Your task to perform on an android device: delete location history Image 0: 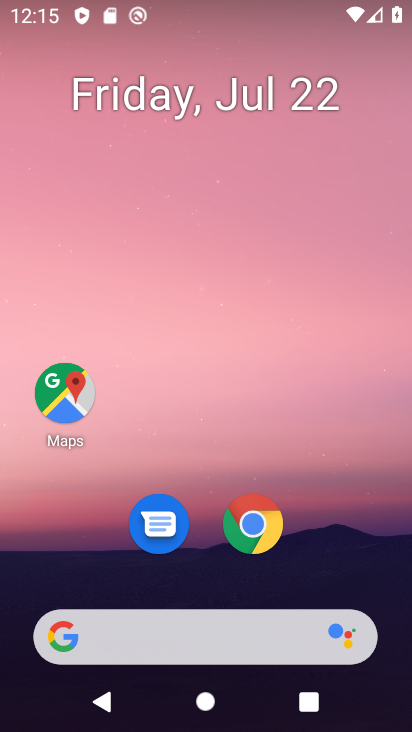
Step 0: press home button
Your task to perform on an android device: delete location history Image 1: 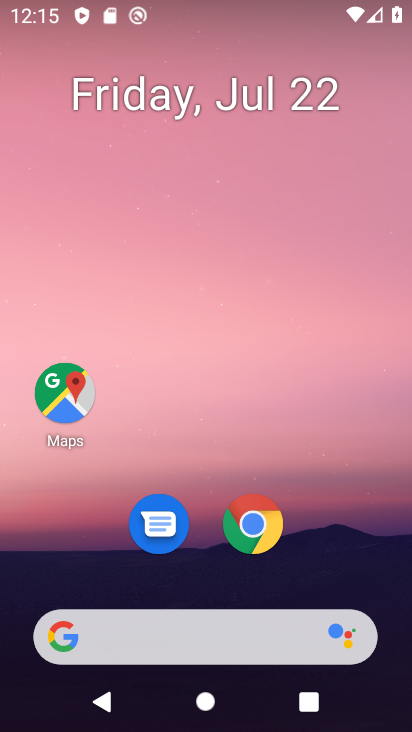
Step 1: click (75, 400)
Your task to perform on an android device: delete location history Image 2: 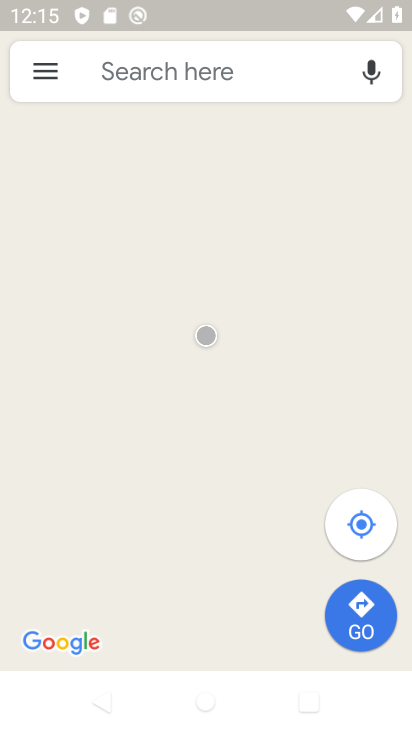
Step 2: click (52, 73)
Your task to perform on an android device: delete location history Image 3: 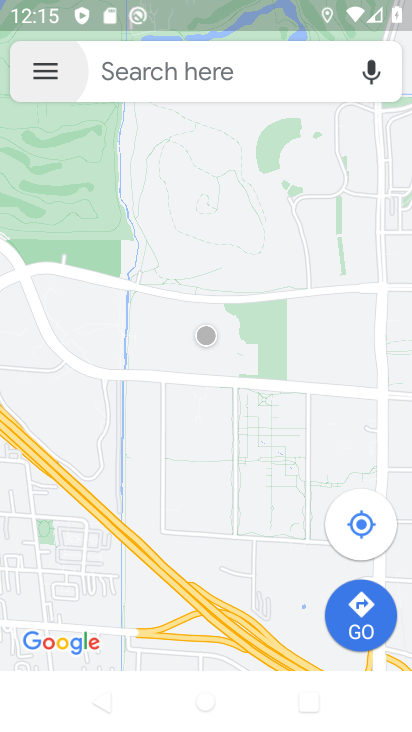
Step 3: click (47, 72)
Your task to perform on an android device: delete location history Image 4: 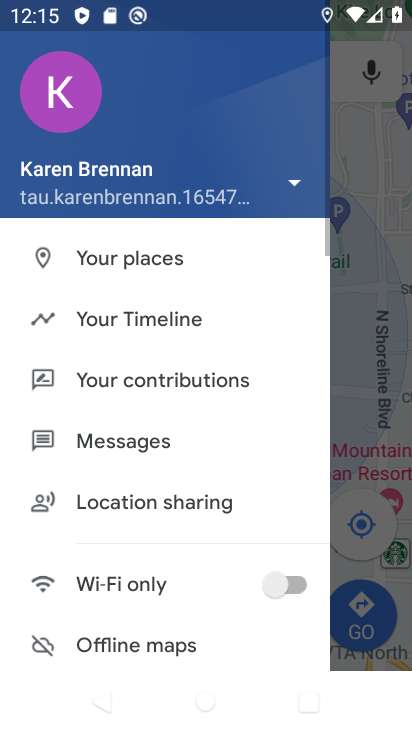
Step 4: drag from (195, 595) to (311, 67)
Your task to perform on an android device: delete location history Image 5: 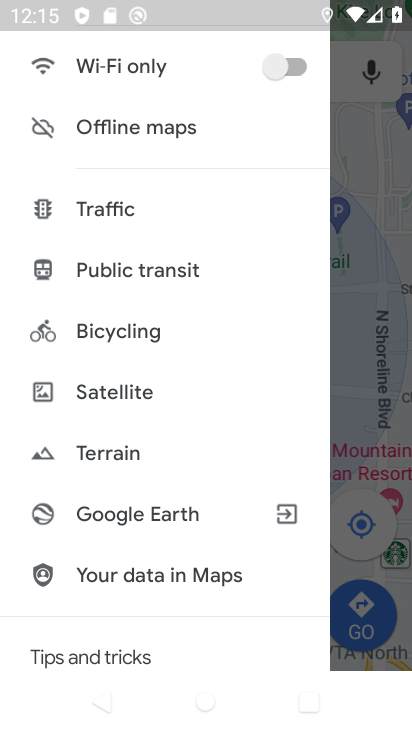
Step 5: drag from (237, 150) to (148, 643)
Your task to perform on an android device: delete location history Image 6: 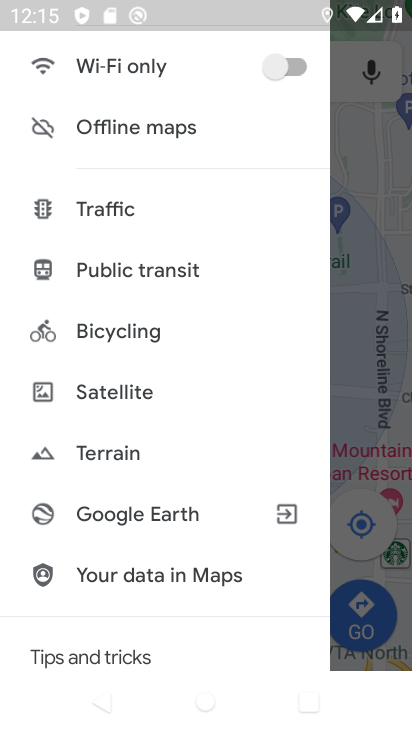
Step 6: drag from (159, 84) to (73, 545)
Your task to perform on an android device: delete location history Image 7: 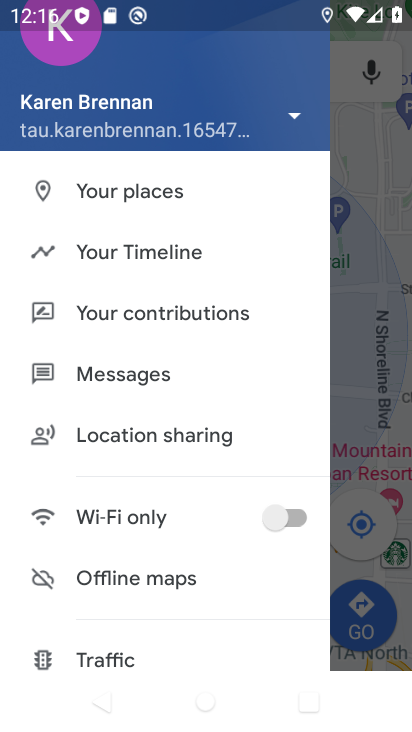
Step 7: click (154, 253)
Your task to perform on an android device: delete location history Image 8: 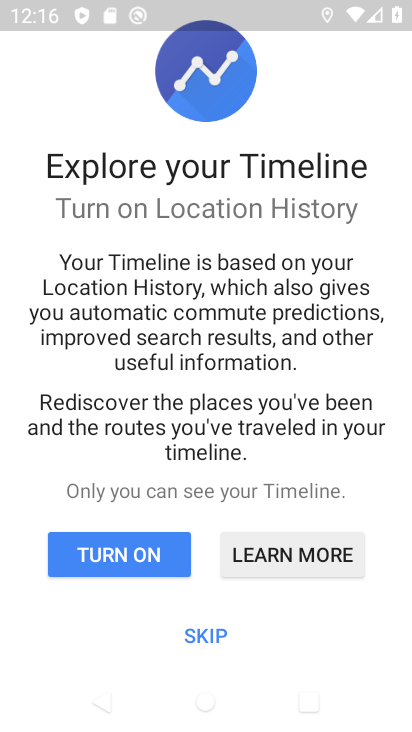
Step 8: click (207, 628)
Your task to perform on an android device: delete location history Image 9: 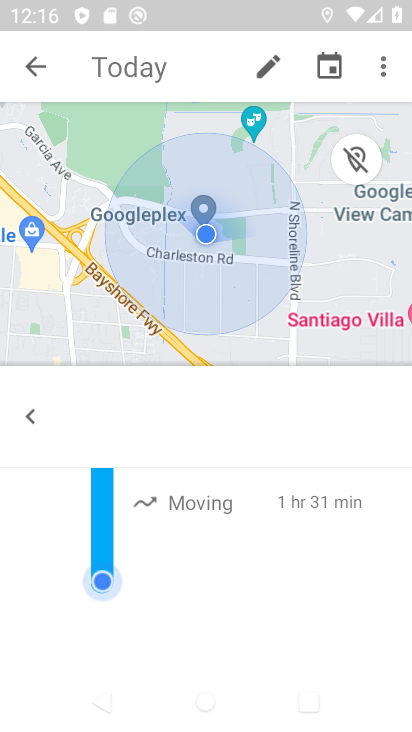
Step 9: click (379, 75)
Your task to perform on an android device: delete location history Image 10: 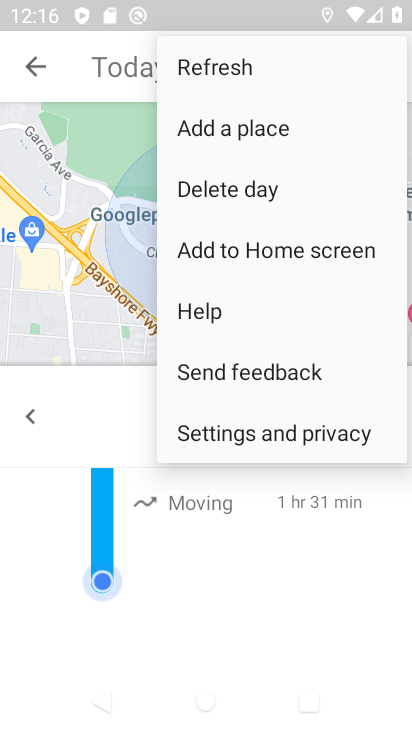
Step 10: click (275, 436)
Your task to perform on an android device: delete location history Image 11: 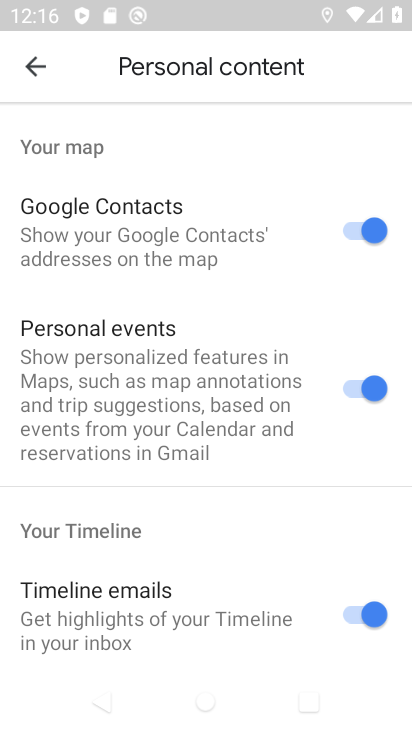
Step 11: drag from (172, 536) to (232, 180)
Your task to perform on an android device: delete location history Image 12: 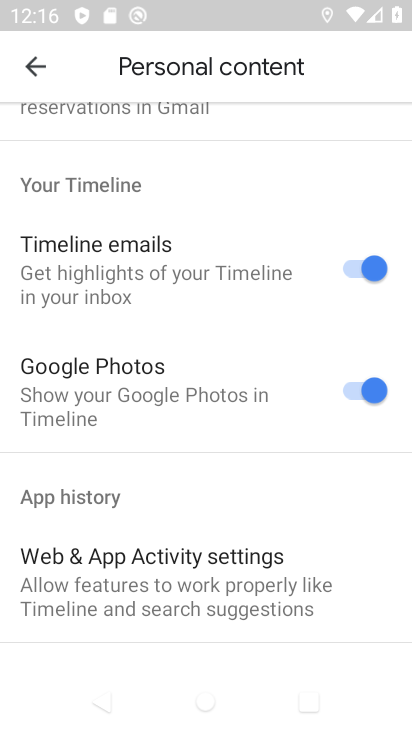
Step 12: drag from (201, 490) to (307, 133)
Your task to perform on an android device: delete location history Image 13: 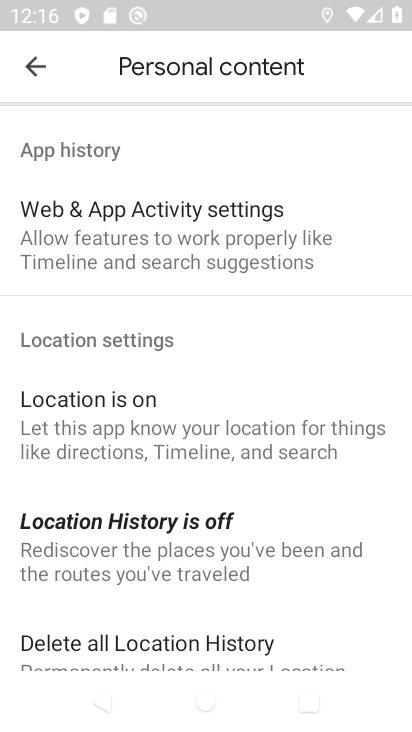
Step 13: drag from (202, 597) to (272, 168)
Your task to perform on an android device: delete location history Image 14: 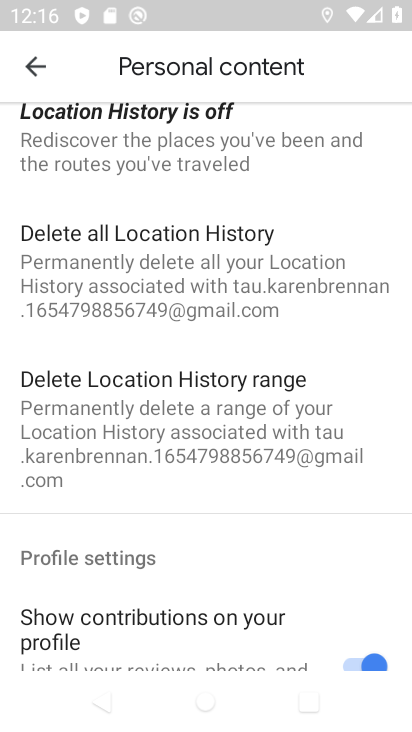
Step 14: click (147, 277)
Your task to perform on an android device: delete location history Image 15: 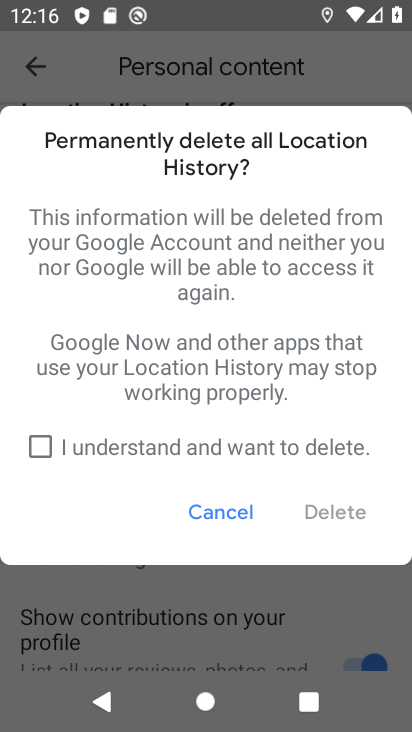
Step 15: click (51, 453)
Your task to perform on an android device: delete location history Image 16: 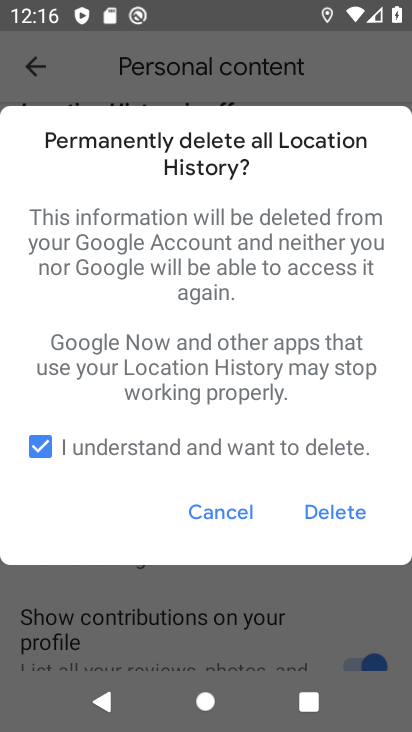
Step 16: click (343, 517)
Your task to perform on an android device: delete location history Image 17: 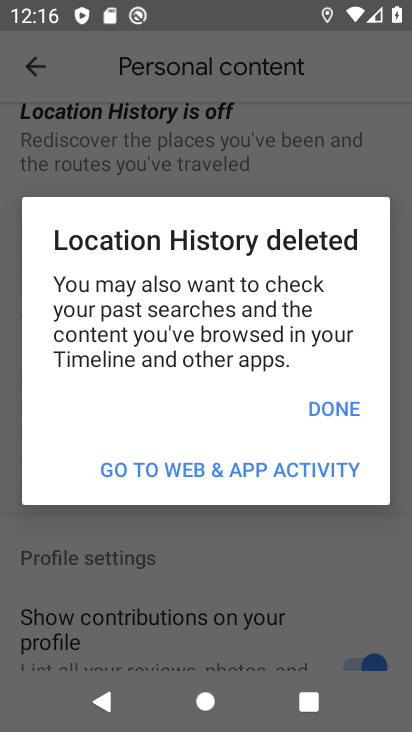
Step 17: click (345, 408)
Your task to perform on an android device: delete location history Image 18: 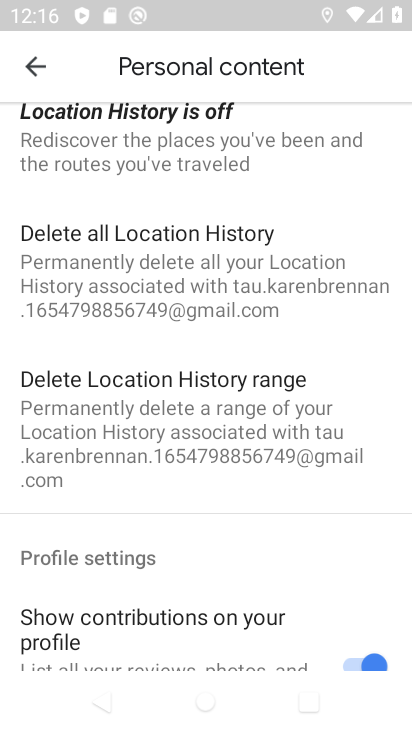
Step 18: task complete